Your task to perform on an android device: Open calendar and show me the third week of next month Image 0: 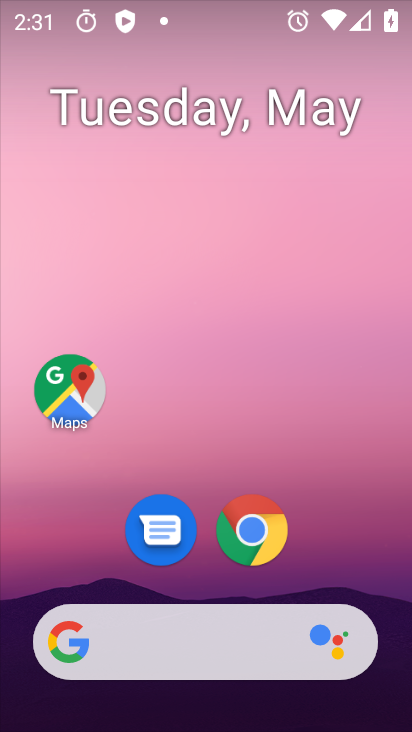
Step 0: drag from (197, 573) to (207, 1)
Your task to perform on an android device: Open calendar and show me the third week of next month Image 1: 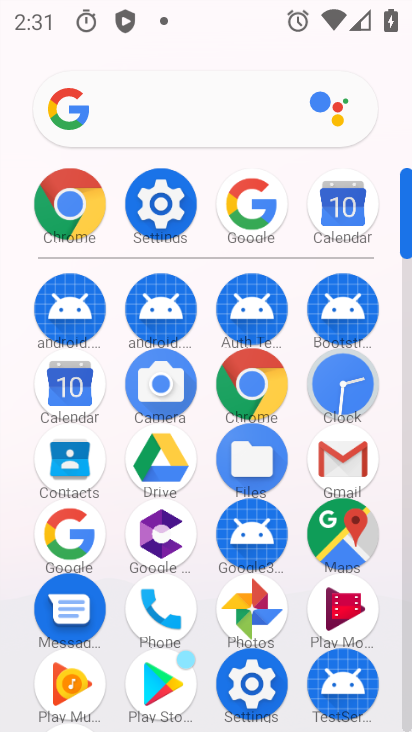
Step 1: click (82, 381)
Your task to perform on an android device: Open calendar and show me the third week of next month Image 2: 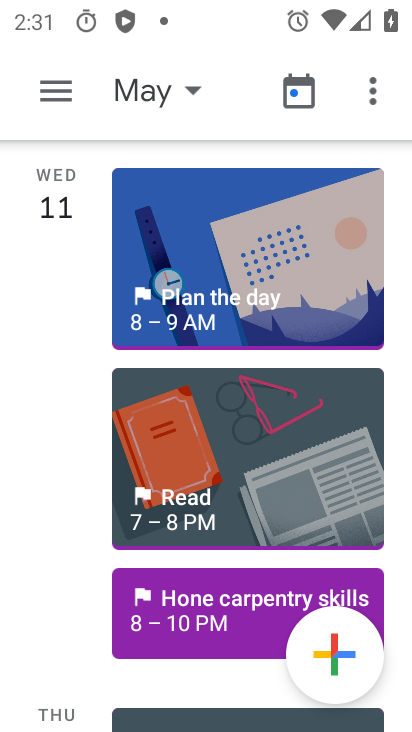
Step 2: click (30, 93)
Your task to perform on an android device: Open calendar and show me the third week of next month Image 3: 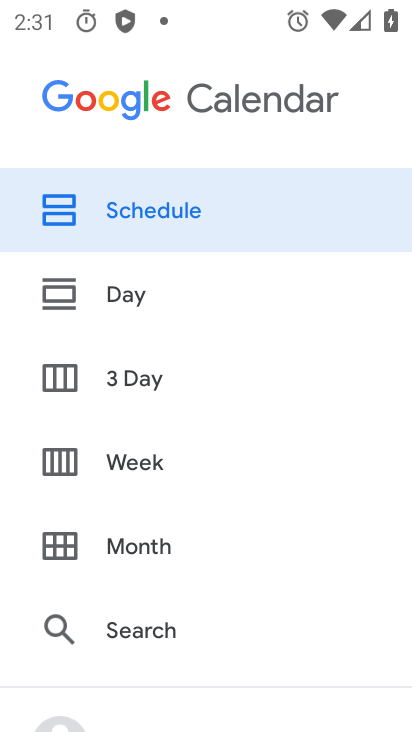
Step 3: click (120, 461)
Your task to perform on an android device: Open calendar and show me the third week of next month Image 4: 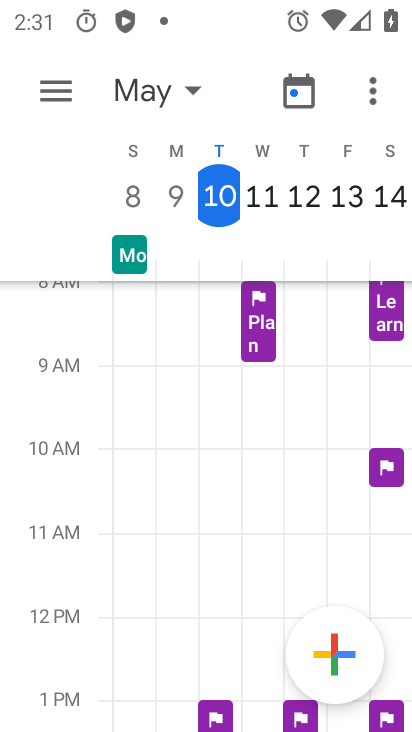
Step 4: task complete